Your task to perform on an android device: Open Youtube and go to "Your channel" Image 0: 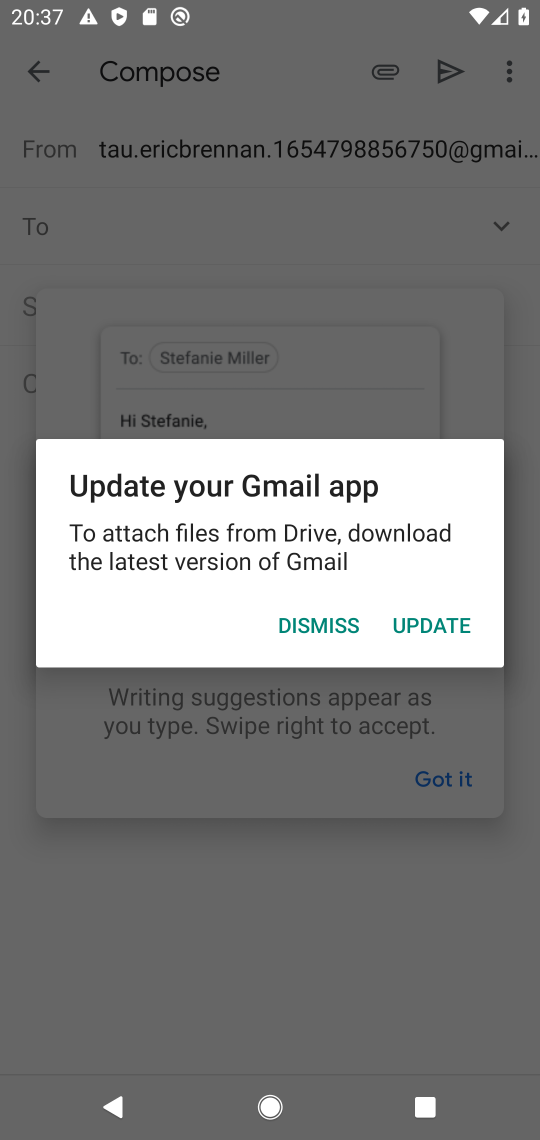
Step 0: press home button
Your task to perform on an android device: Open Youtube and go to "Your channel" Image 1: 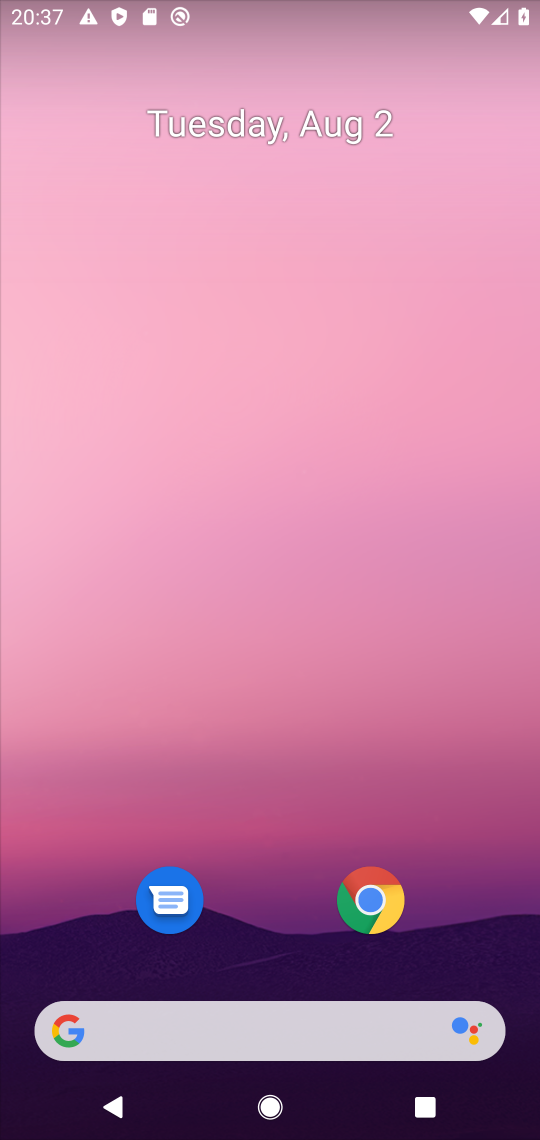
Step 1: drag from (288, 803) to (267, 0)
Your task to perform on an android device: Open Youtube and go to "Your channel" Image 2: 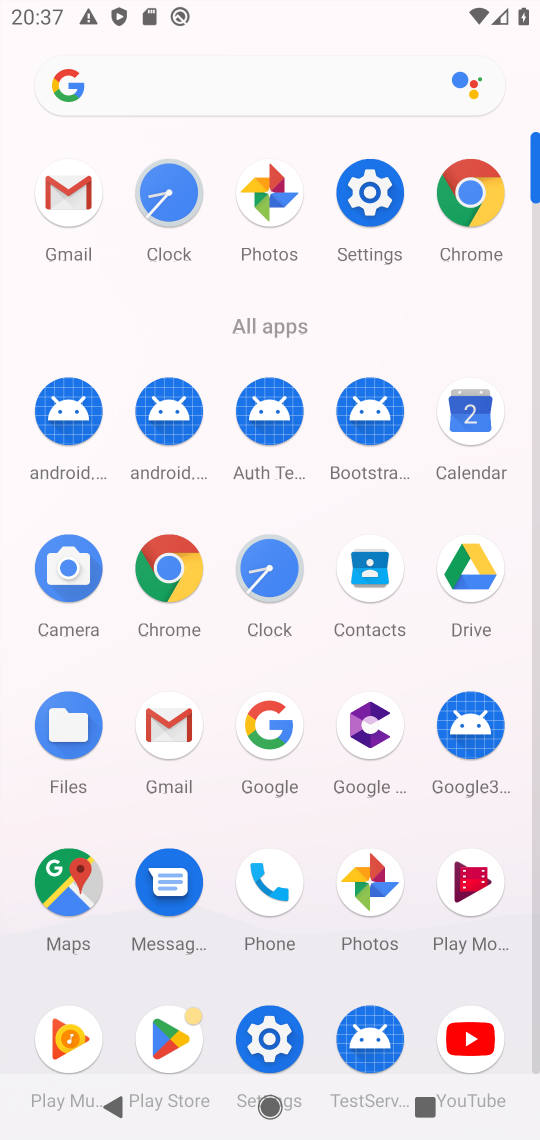
Step 2: click (471, 1029)
Your task to perform on an android device: Open Youtube and go to "Your channel" Image 3: 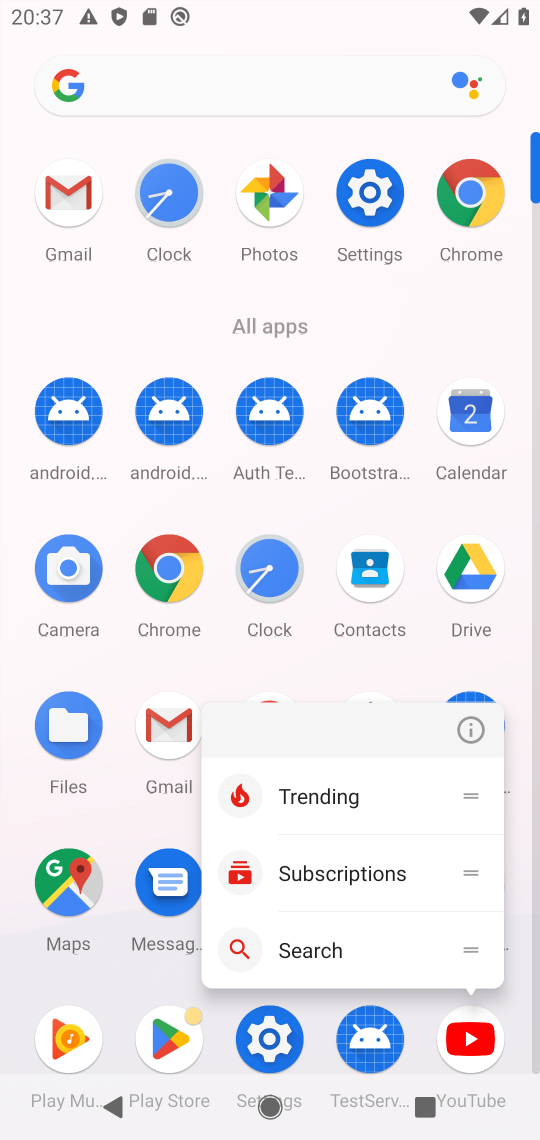
Step 3: click (479, 1029)
Your task to perform on an android device: Open Youtube and go to "Your channel" Image 4: 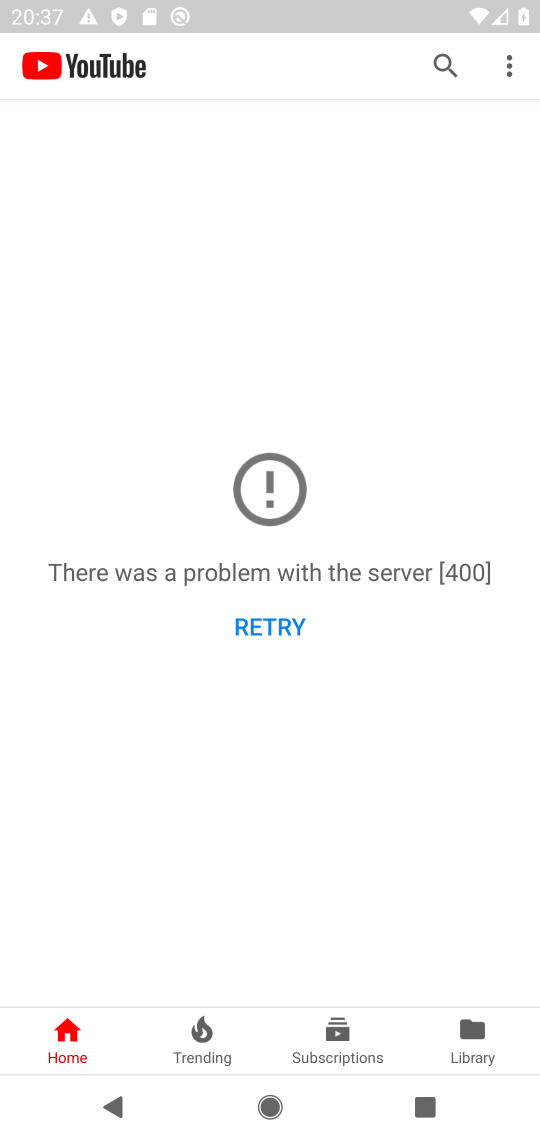
Step 4: click (506, 69)
Your task to perform on an android device: Open Youtube and go to "Your channel" Image 5: 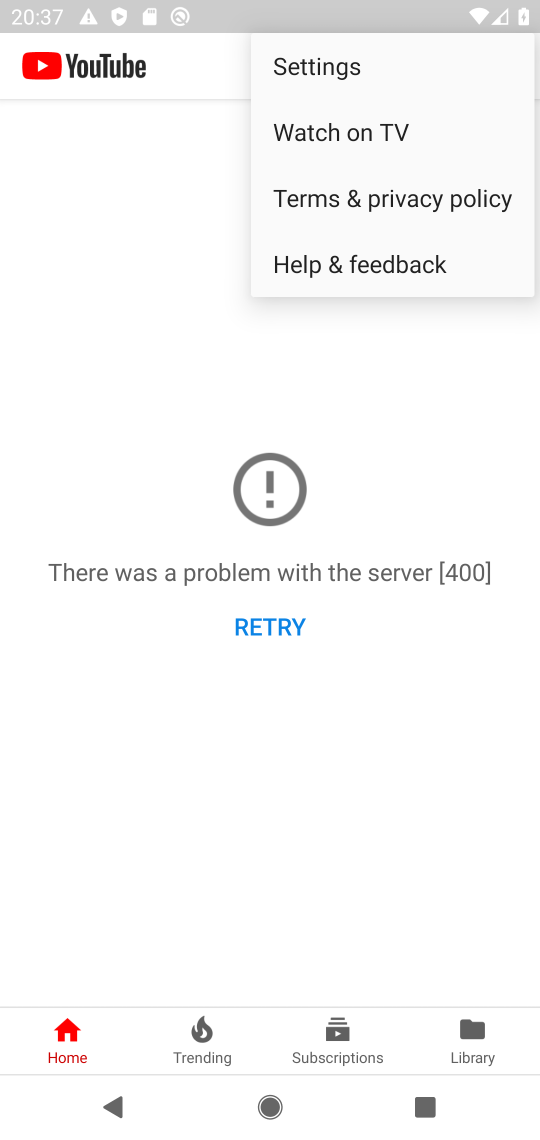
Step 5: click (383, 50)
Your task to perform on an android device: Open Youtube and go to "Your channel" Image 6: 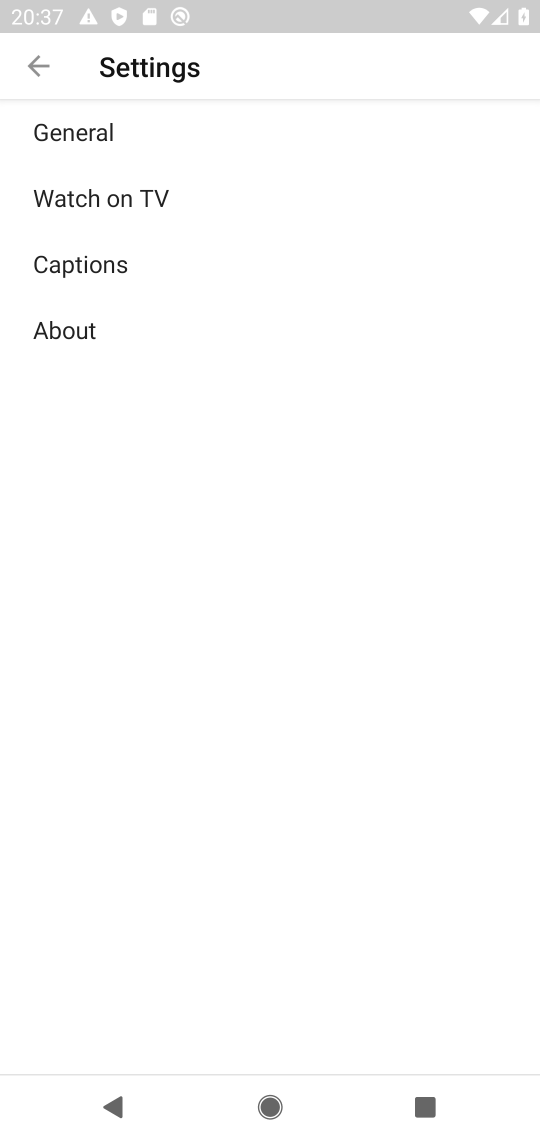
Step 6: click (40, 62)
Your task to perform on an android device: Open Youtube and go to "Your channel" Image 7: 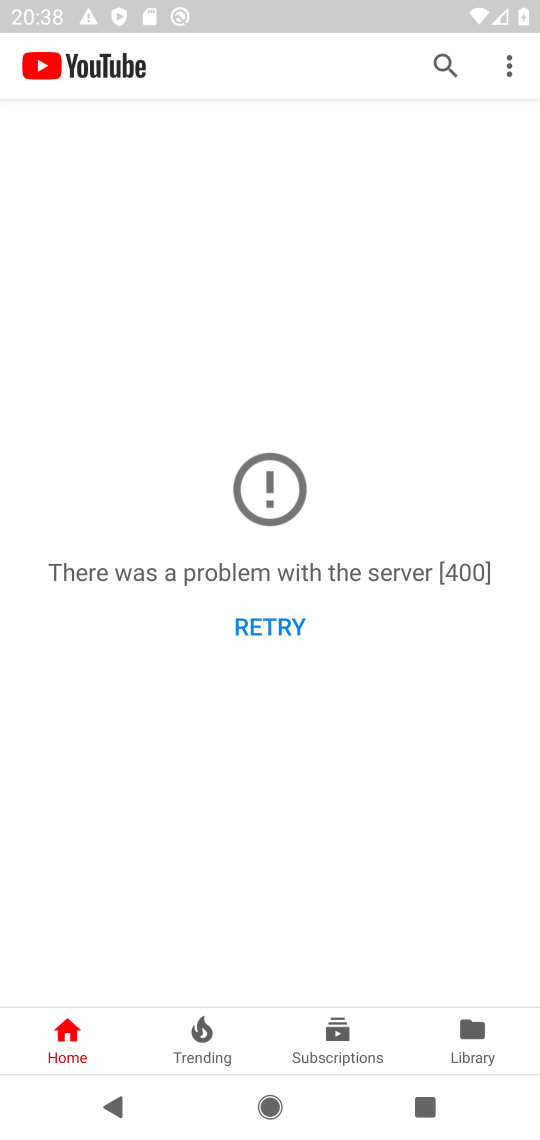
Step 7: task complete